Your task to perform on an android device: Clear the cart on newegg. Add usb-c to usb-a to the cart on newegg Image 0: 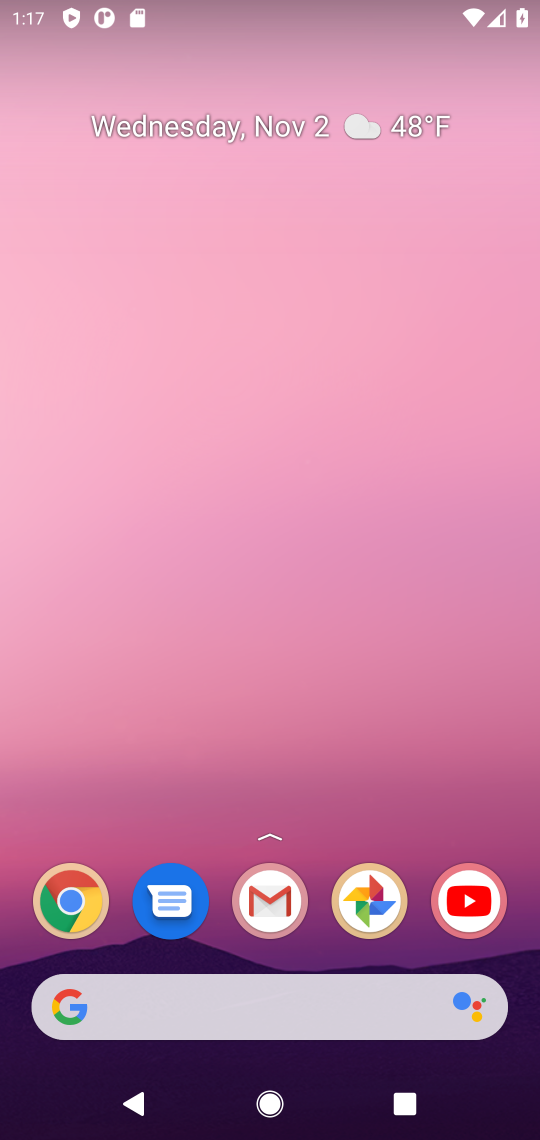
Step 0: drag from (332, 961) to (413, 234)
Your task to perform on an android device: Clear the cart on newegg. Add usb-c to usb-a to the cart on newegg Image 1: 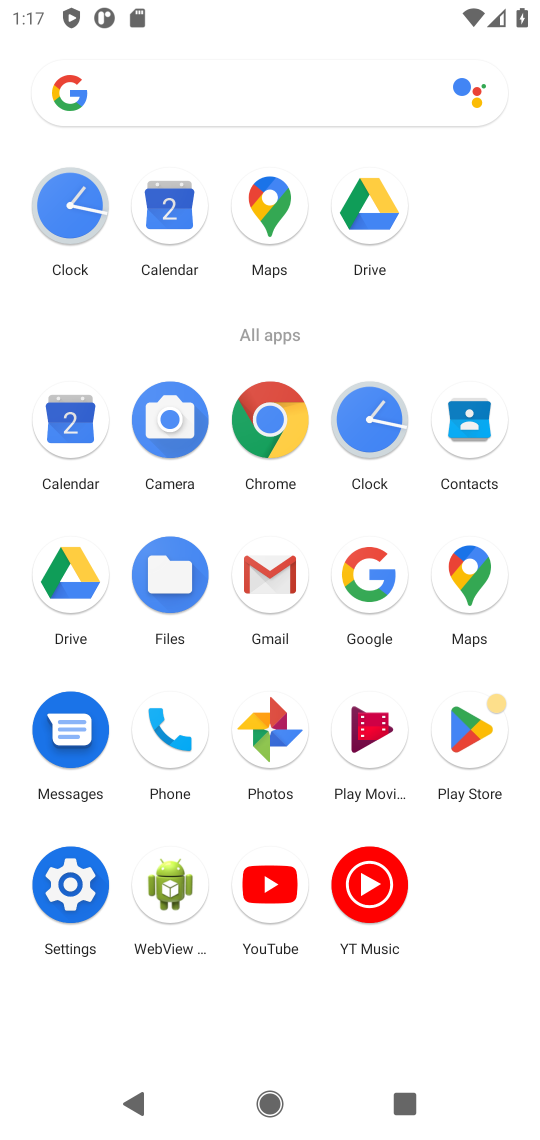
Step 1: click (275, 419)
Your task to perform on an android device: Clear the cart on newegg. Add usb-c to usb-a to the cart on newegg Image 2: 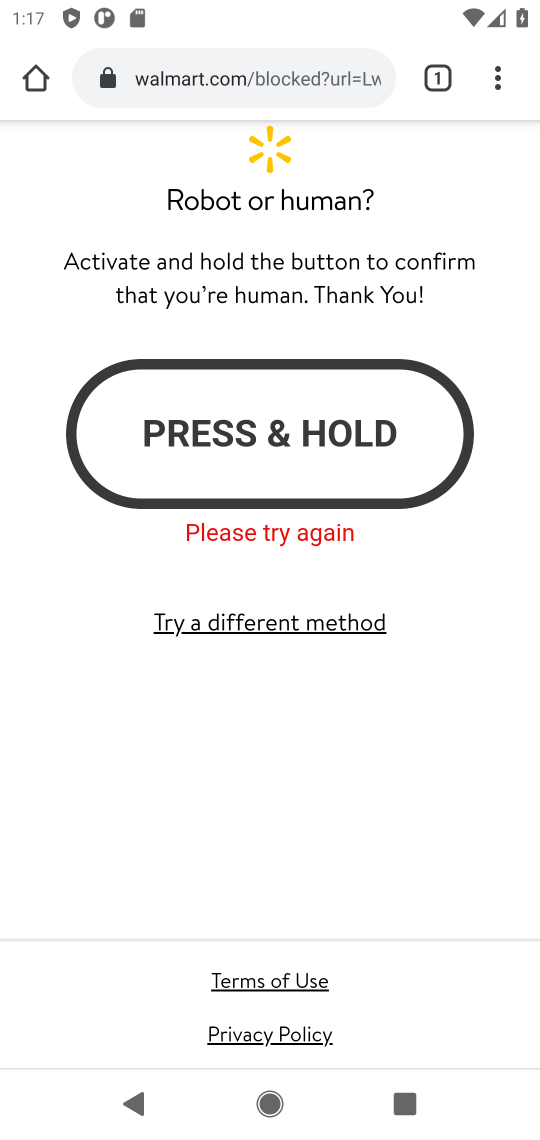
Step 2: click (293, 74)
Your task to perform on an android device: Clear the cart on newegg. Add usb-c to usb-a to the cart on newegg Image 3: 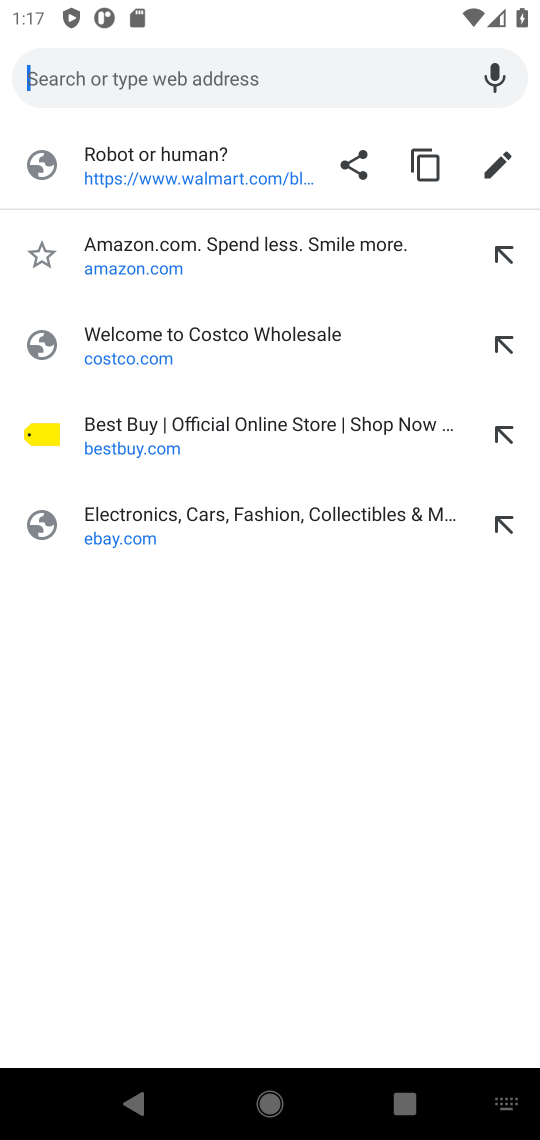
Step 3: type "newegg.com"
Your task to perform on an android device: Clear the cart on newegg. Add usb-c to usb-a to the cart on newegg Image 4: 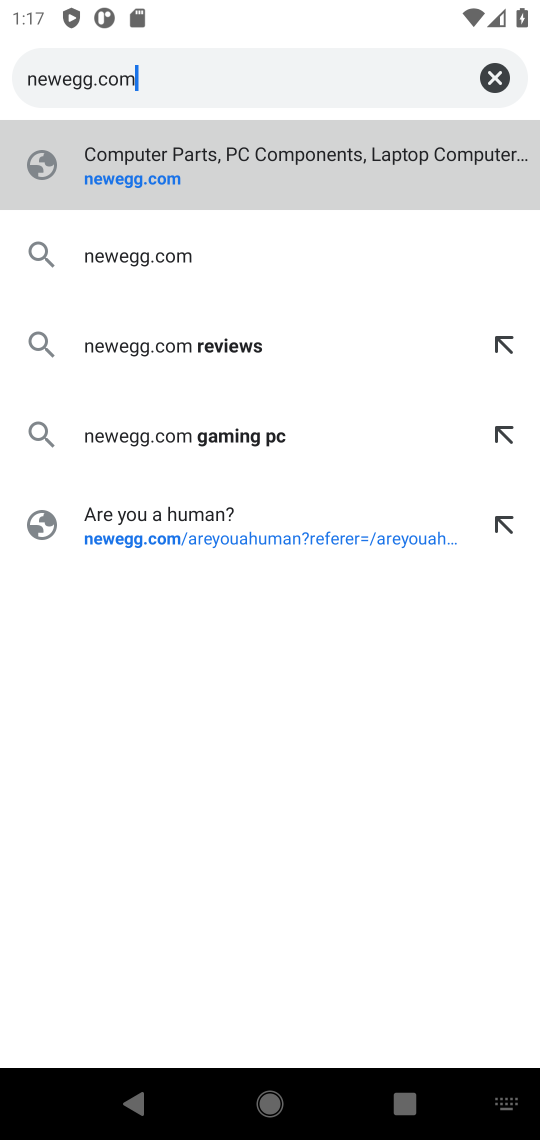
Step 4: press enter
Your task to perform on an android device: Clear the cart on newegg. Add usb-c to usb-a to the cart on newegg Image 5: 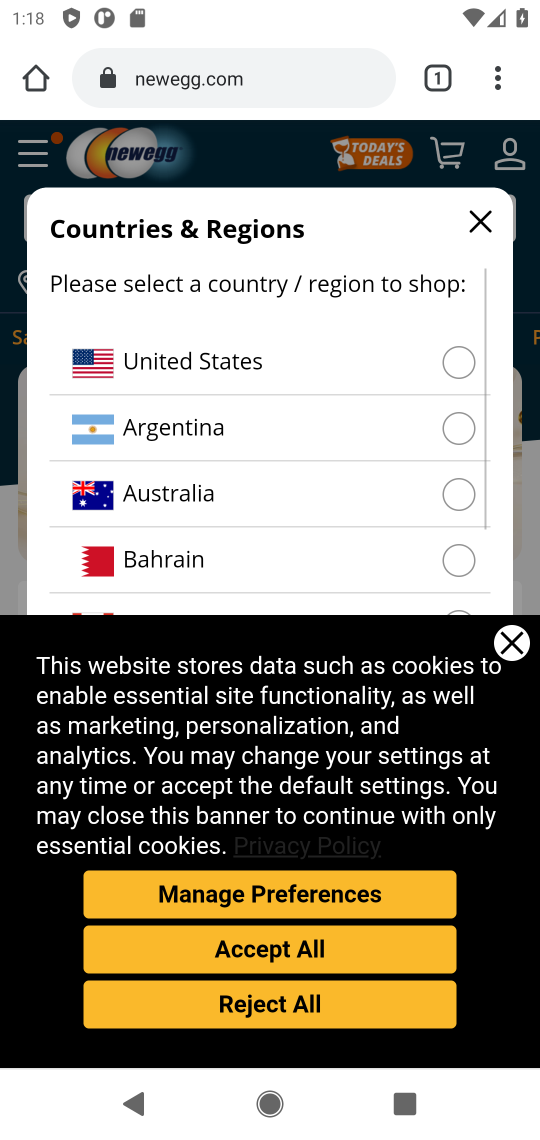
Step 5: click (486, 221)
Your task to perform on an android device: Clear the cart on newegg. Add usb-c to usb-a to the cart on newegg Image 6: 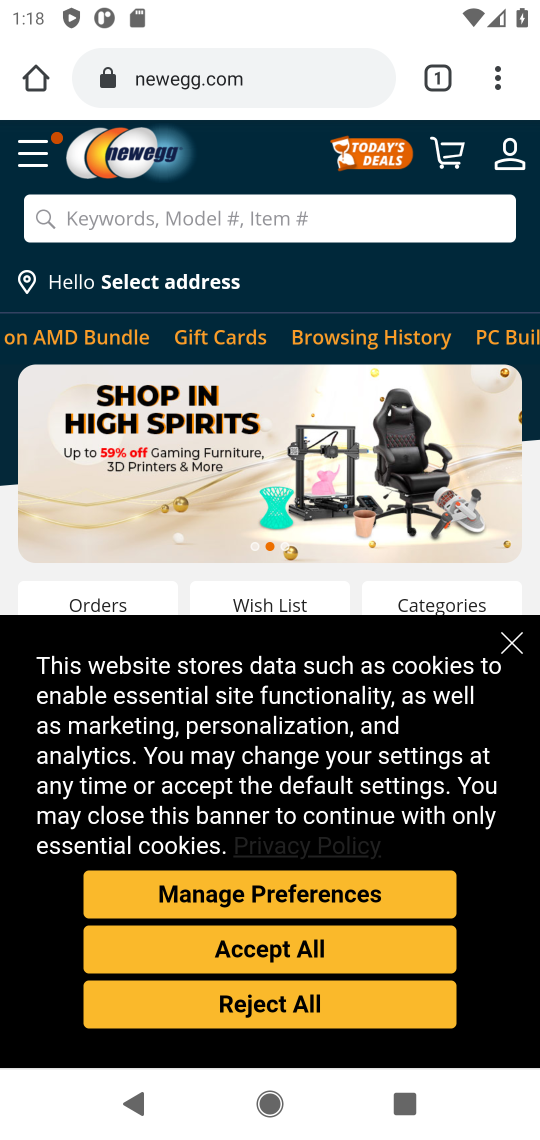
Step 6: click (441, 160)
Your task to perform on an android device: Clear the cart on newegg. Add usb-c to usb-a to the cart on newegg Image 7: 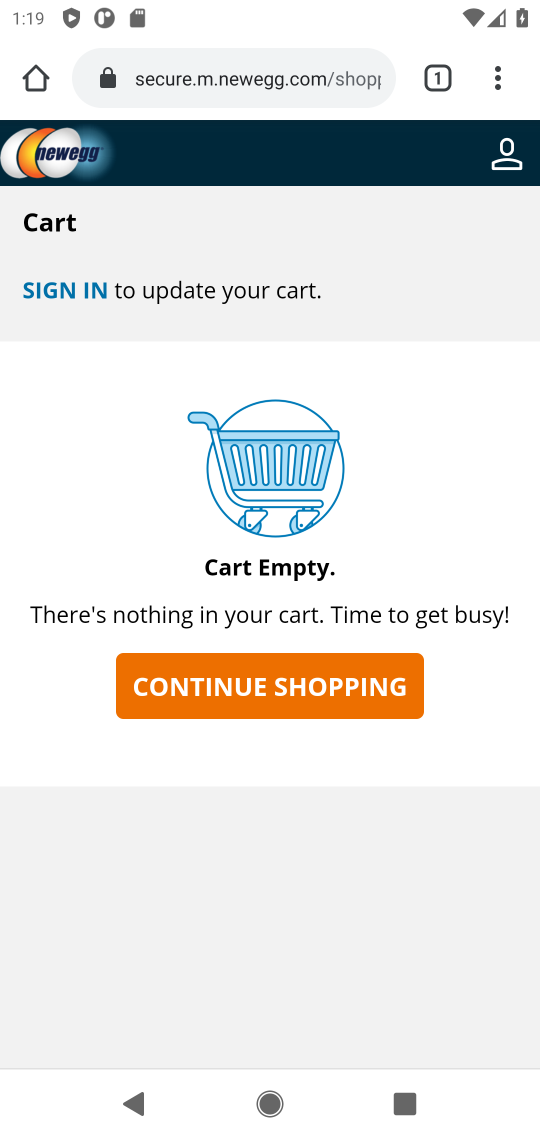
Step 7: click (307, 697)
Your task to perform on an android device: Clear the cart on newegg. Add usb-c to usb-a to the cart on newegg Image 8: 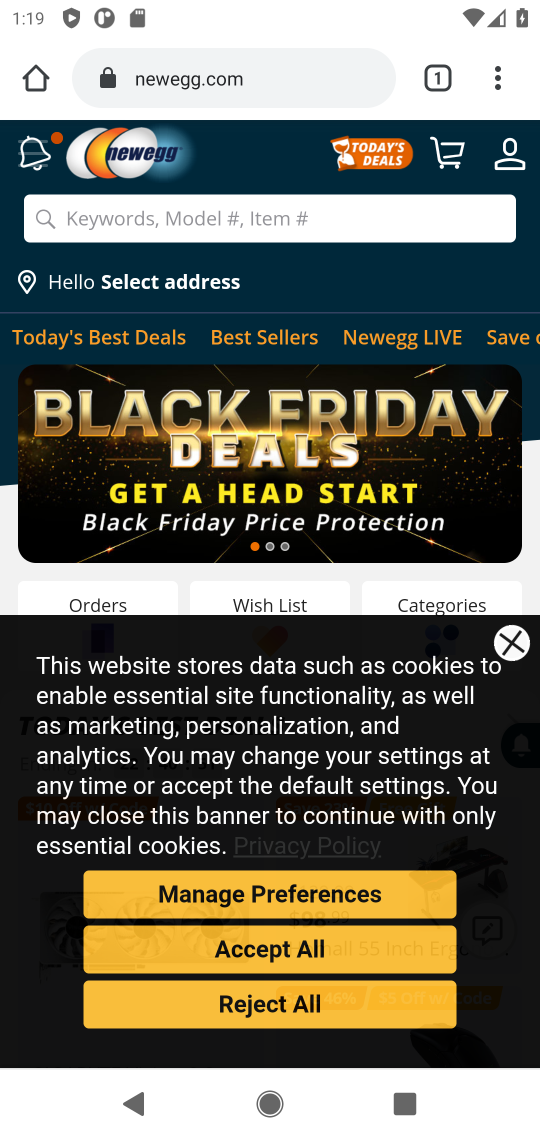
Step 8: click (230, 205)
Your task to perform on an android device: Clear the cart on newegg. Add usb-c to usb-a to the cart on newegg Image 9: 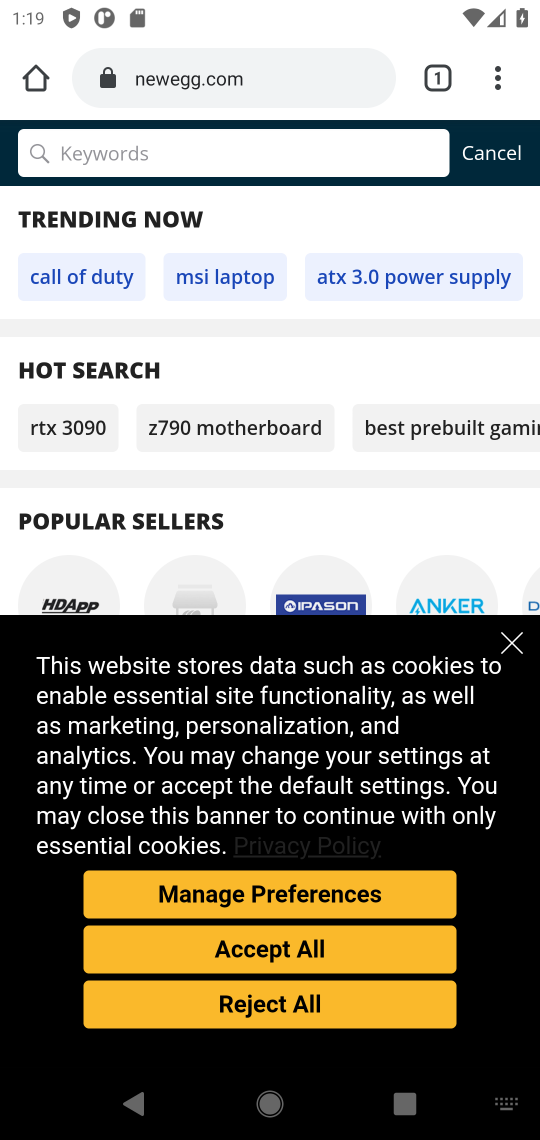
Step 9: type "usb-c to usb-a"
Your task to perform on an android device: Clear the cart on newegg. Add usb-c to usb-a to the cart on newegg Image 10: 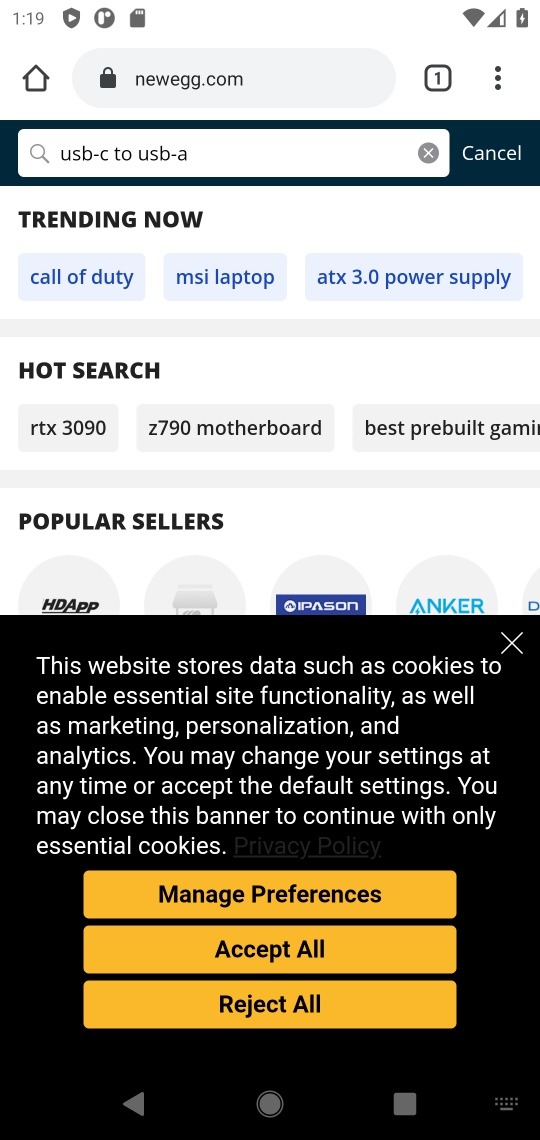
Step 10: press enter
Your task to perform on an android device: Clear the cart on newegg. Add usb-c to usb-a to the cart on newegg Image 11: 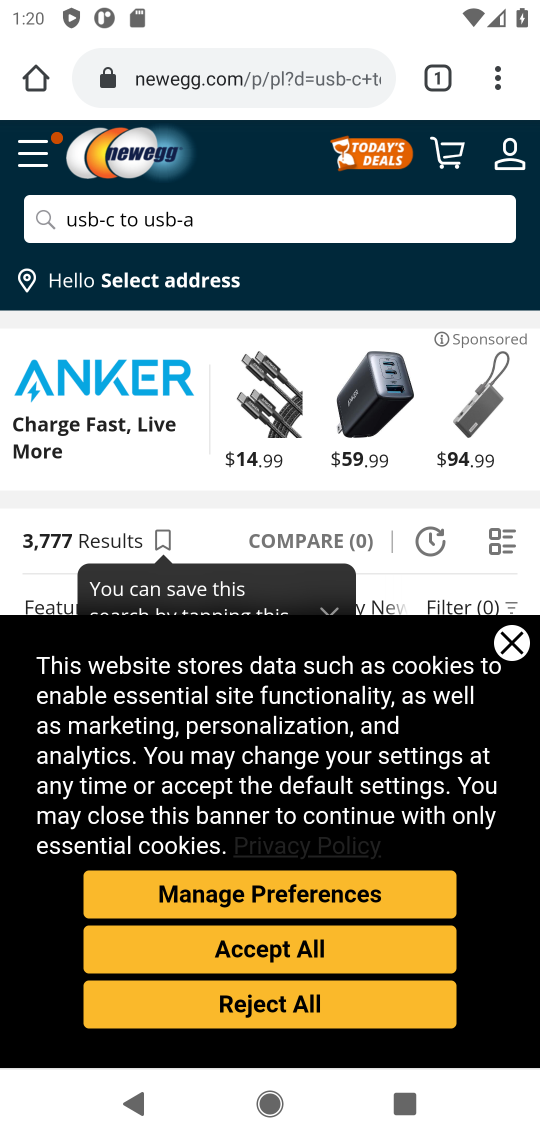
Step 11: click (510, 643)
Your task to perform on an android device: Clear the cart on newegg. Add usb-c to usb-a to the cart on newegg Image 12: 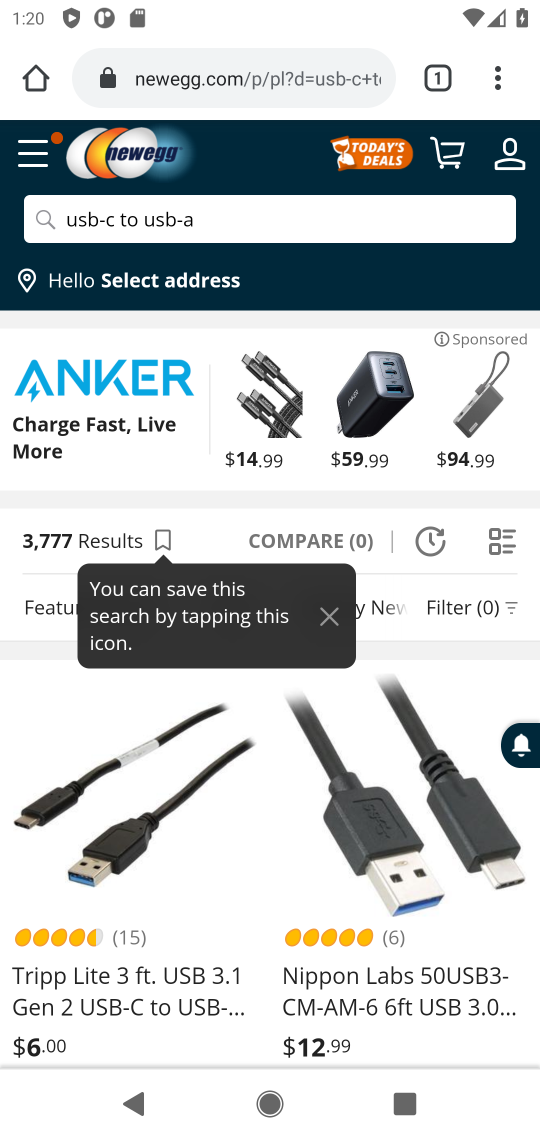
Step 12: drag from (394, 792) to (385, 244)
Your task to perform on an android device: Clear the cart on newegg. Add usb-c to usb-a to the cart on newegg Image 13: 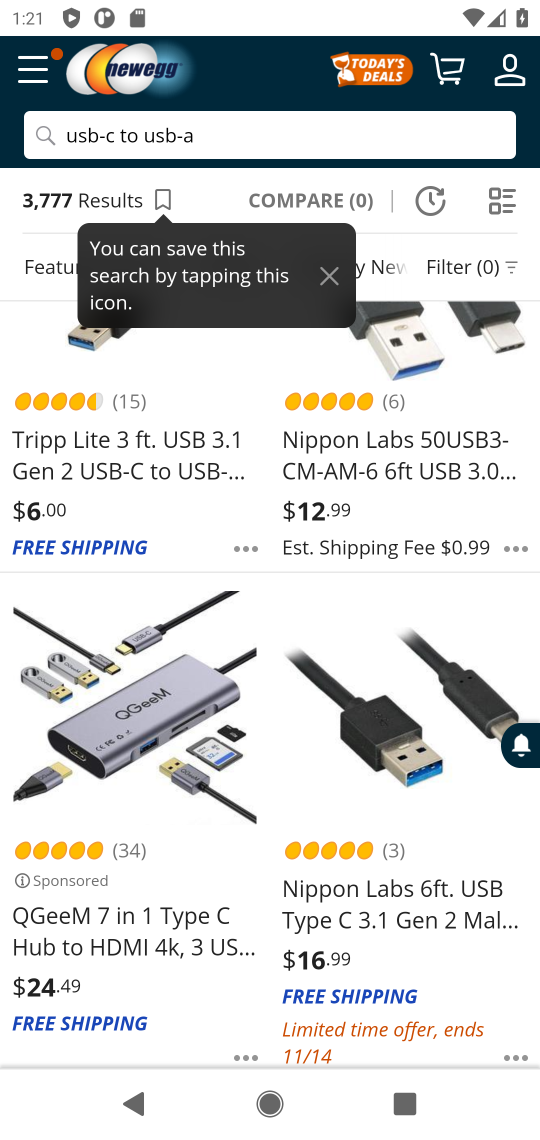
Step 13: drag from (77, 393) to (256, 884)
Your task to perform on an android device: Clear the cart on newegg. Add usb-c to usb-a to the cart on newegg Image 14: 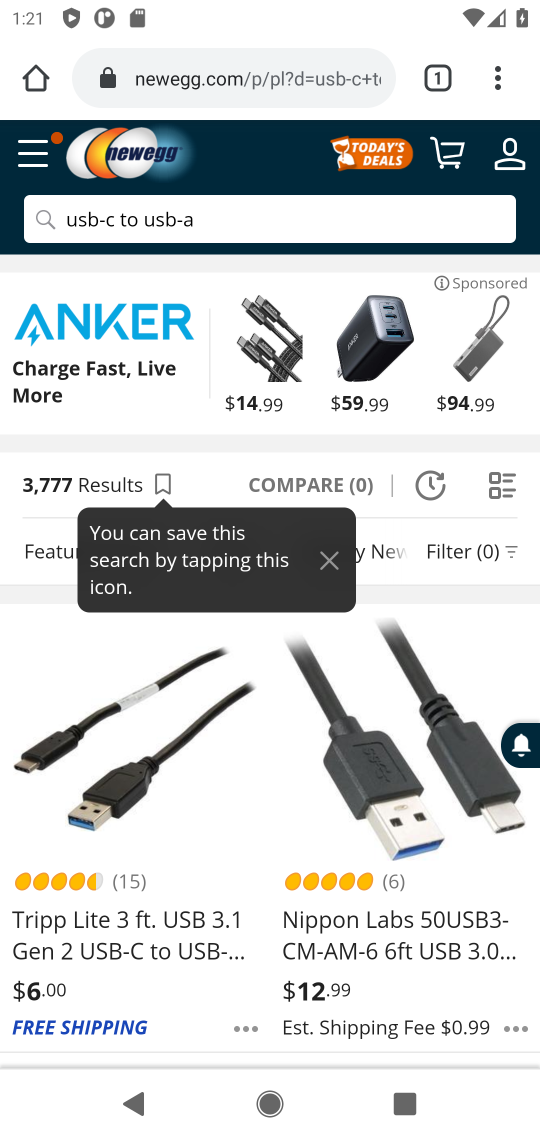
Step 14: click (328, 543)
Your task to perform on an android device: Clear the cart on newegg. Add usb-c to usb-a to the cart on newegg Image 15: 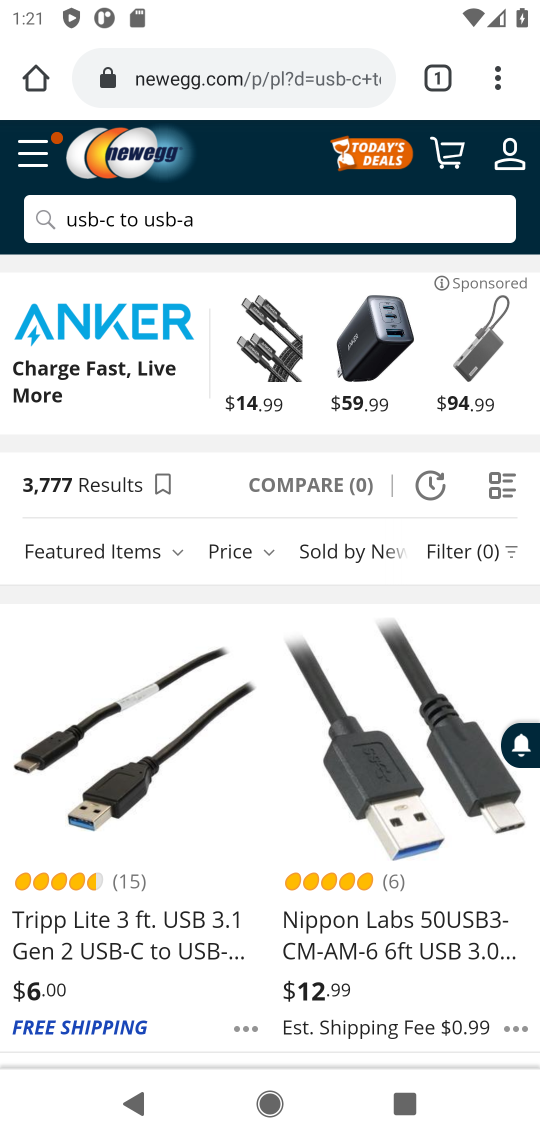
Step 15: task complete